Your task to perform on an android device: Go to Amazon Image 0: 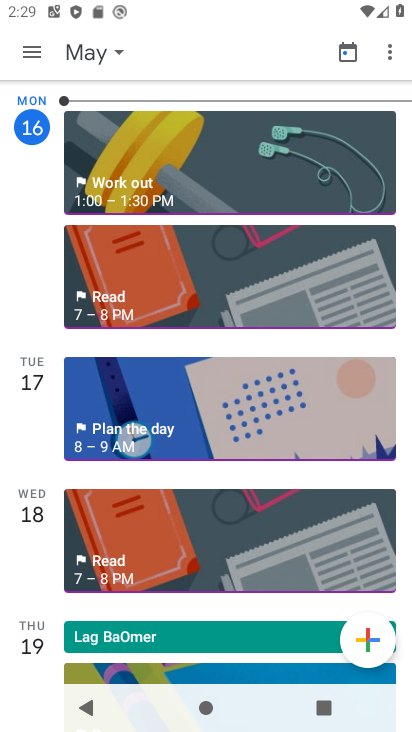
Step 0: press home button
Your task to perform on an android device: Go to Amazon Image 1: 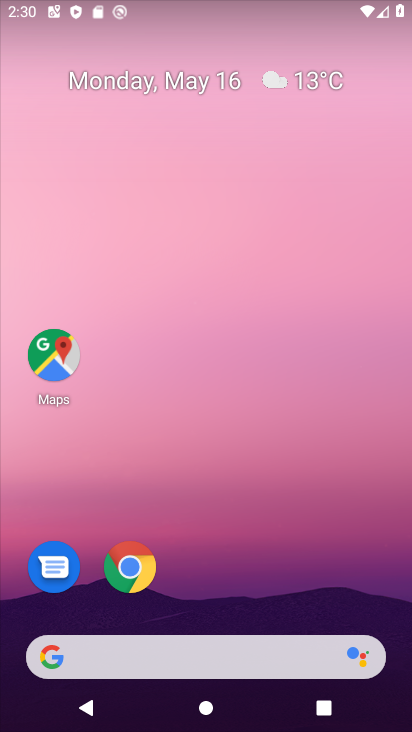
Step 1: click (127, 566)
Your task to perform on an android device: Go to Amazon Image 2: 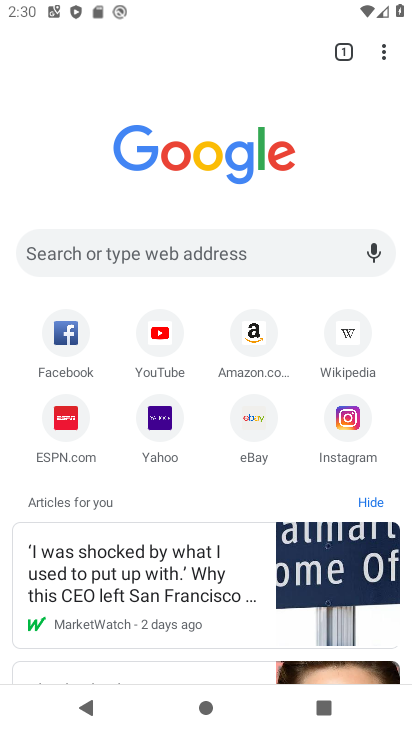
Step 2: click (246, 335)
Your task to perform on an android device: Go to Amazon Image 3: 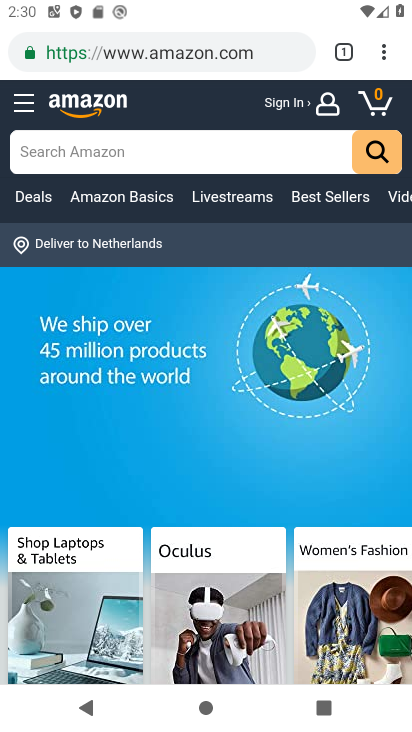
Step 3: task complete